Your task to perform on an android device: create a new album in the google photos Image 0: 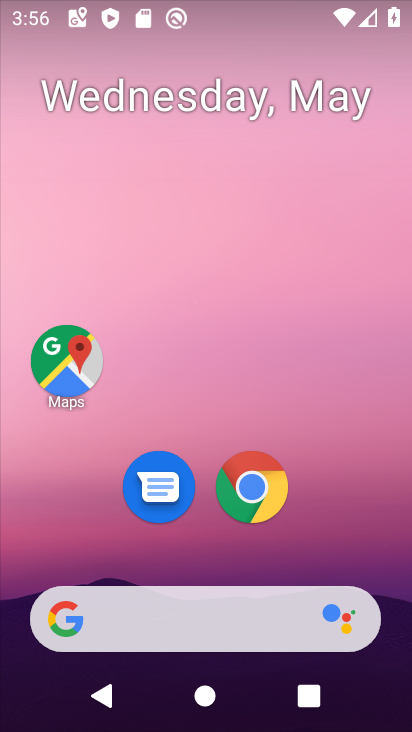
Step 0: drag from (335, 535) to (264, 4)
Your task to perform on an android device: create a new album in the google photos Image 1: 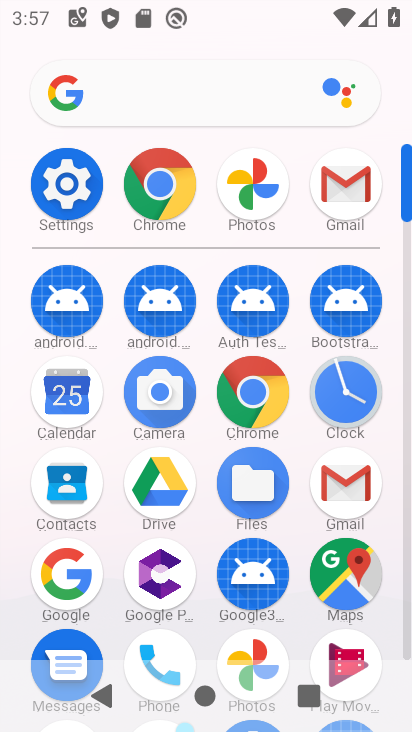
Step 1: drag from (19, 580) to (13, 301)
Your task to perform on an android device: create a new album in the google photos Image 2: 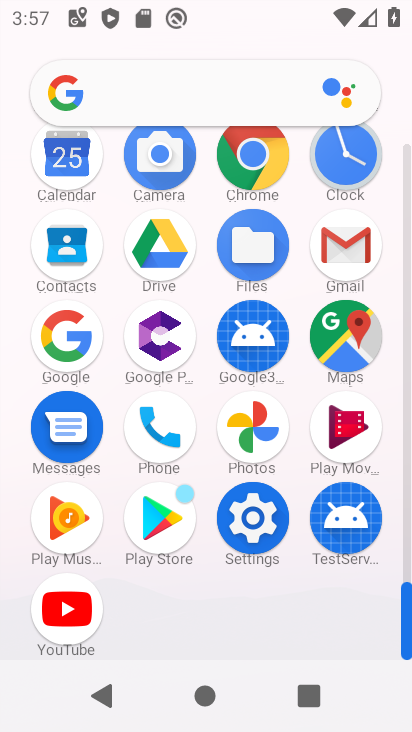
Step 2: click (252, 424)
Your task to perform on an android device: create a new album in the google photos Image 3: 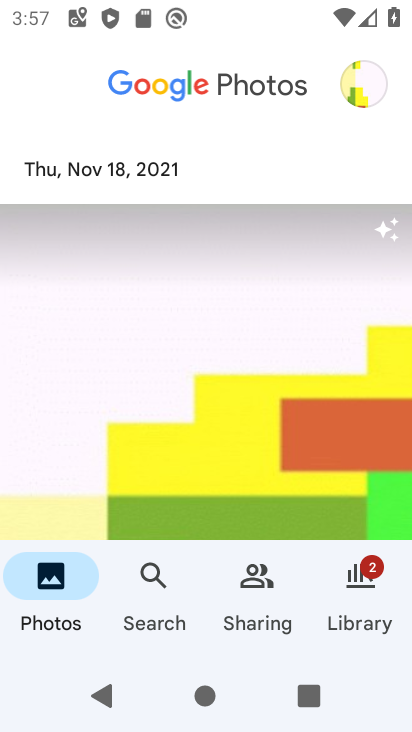
Step 3: drag from (176, 454) to (201, 162)
Your task to perform on an android device: create a new album in the google photos Image 4: 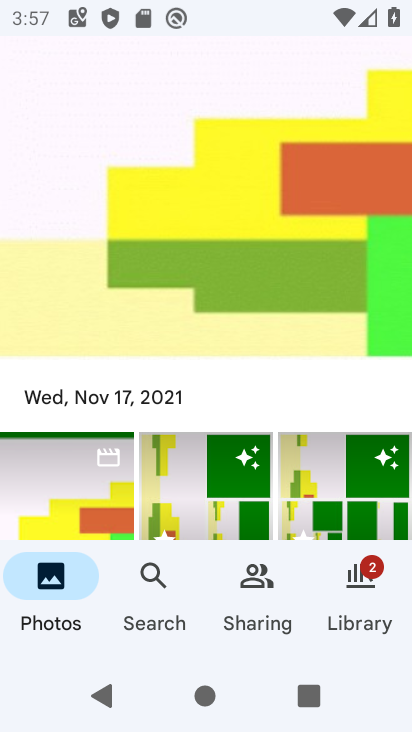
Step 4: click (60, 496)
Your task to perform on an android device: create a new album in the google photos Image 5: 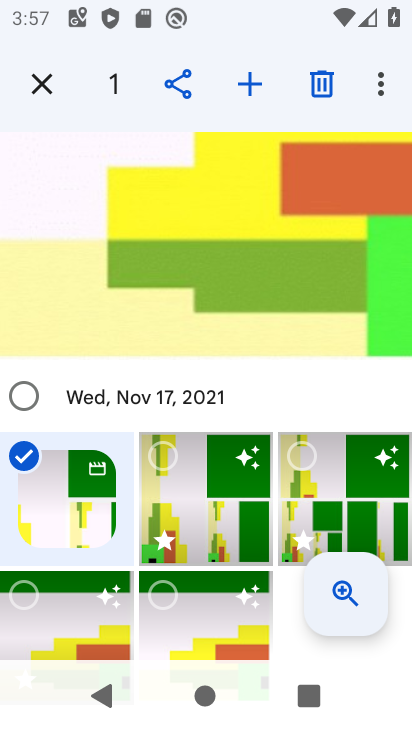
Step 5: click (256, 74)
Your task to perform on an android device: create a new album in the google photos Image 6: 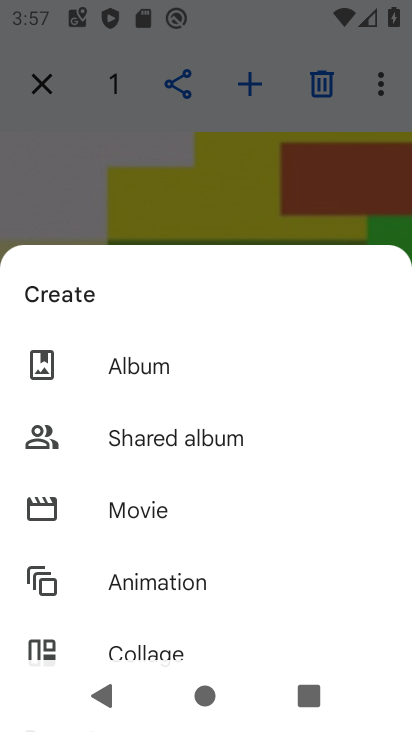
Step 6: click (168, 369)
Your task to perform on an android device: create a new album in the google photos Image 7: 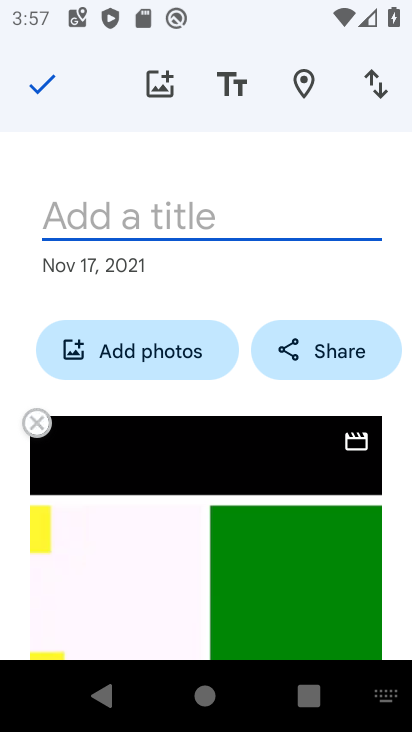
Step 7: type "Xcv"
Your task to perform on an android device: create a new album in the google photos Image 8: 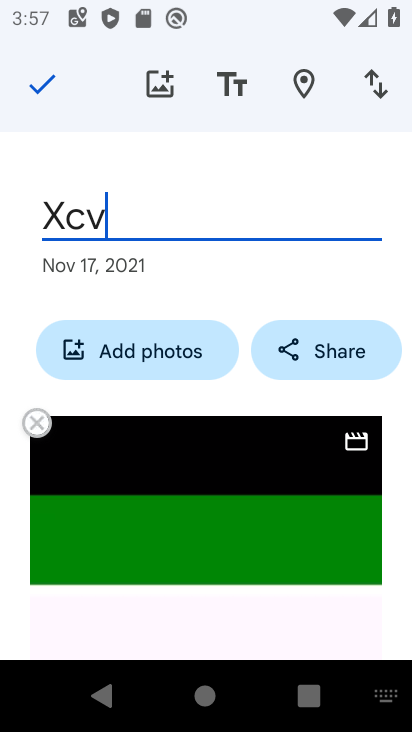
Step 8: type ""
Your task to perform on an android device: create a new album in the google photos Image 9: 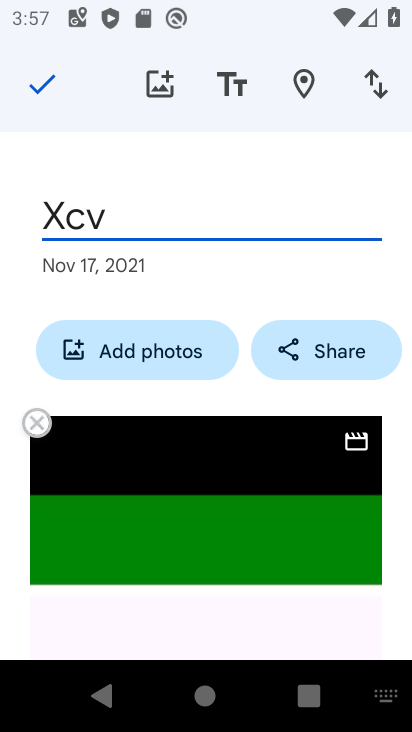
Step 9: click (45, 70)
Your task to perform on an android device: create a new album in the google photos Image 10: 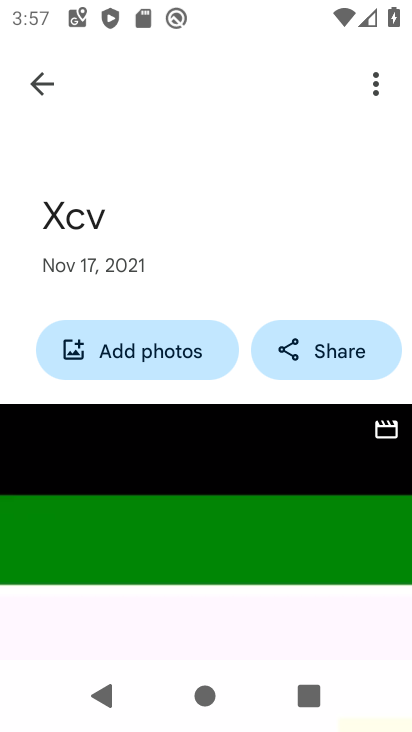
Step 10: task complete